Your task to perform on an android device: Do I have any events tomorrow? Image 0: 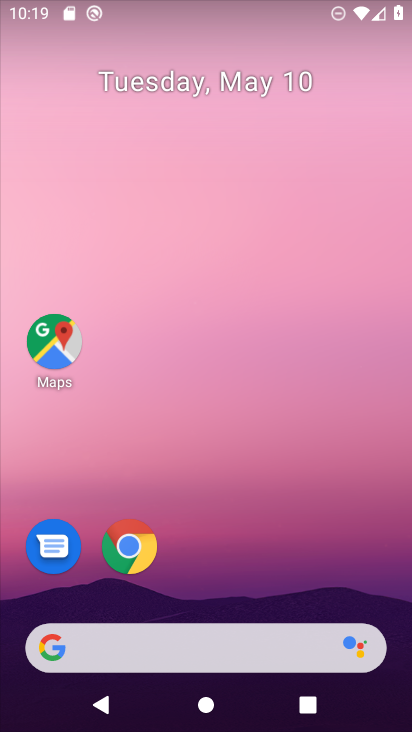
Step 0: drag from (257, 548) to (270, 67)
Your task to perform on an android device: Do I have any events tomorrow? Image 1: 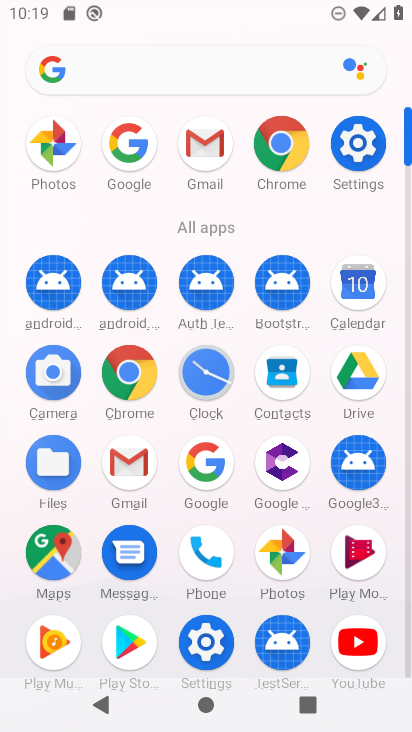
Step 1: click (349, 278)
Your task to perform on an android device: Do I have any events tomorrow? Image 2: 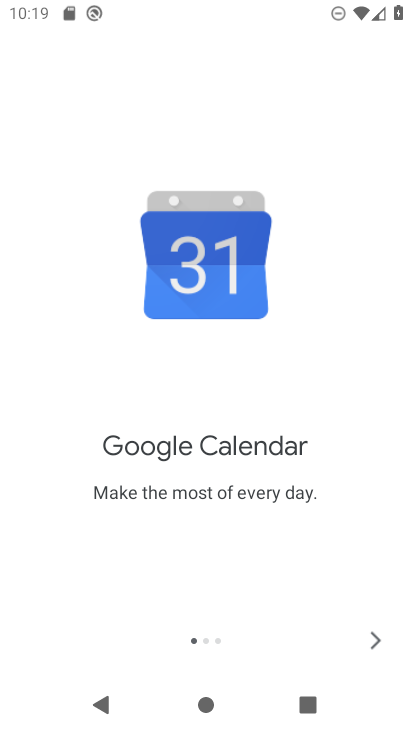
Step 2: click (376, 637)
Your task to perform on an android device: Do I have any events tomorrow? Image 3: 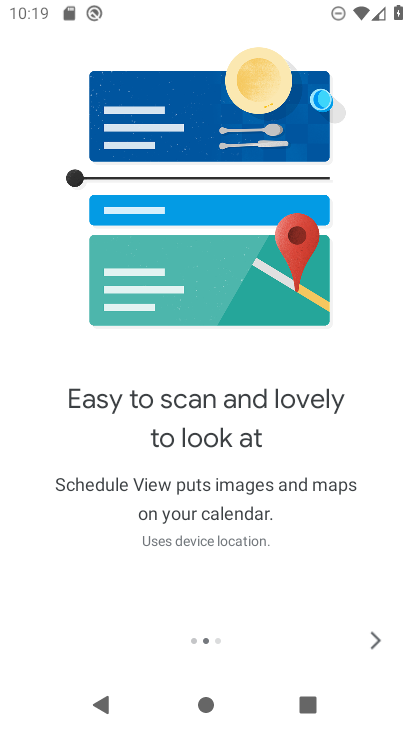
Step 3: click (376, 637)
Your task to perform on an android device: Do I have any events tomorrow? Image 4: 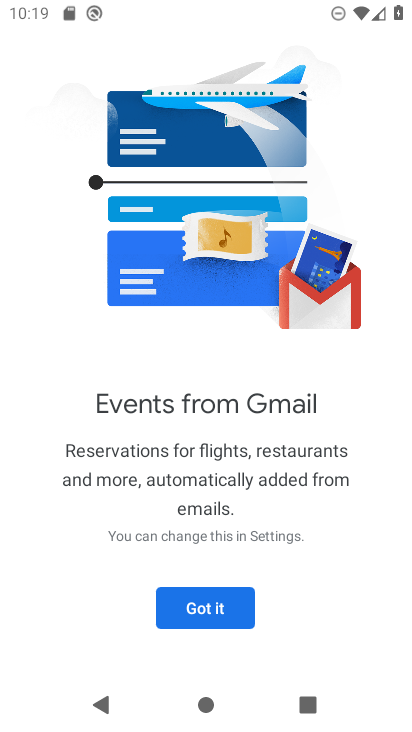
Step 4: click (183, 614)
Your task to perform on an android device: Do I have any events tomorrow? Image 5: 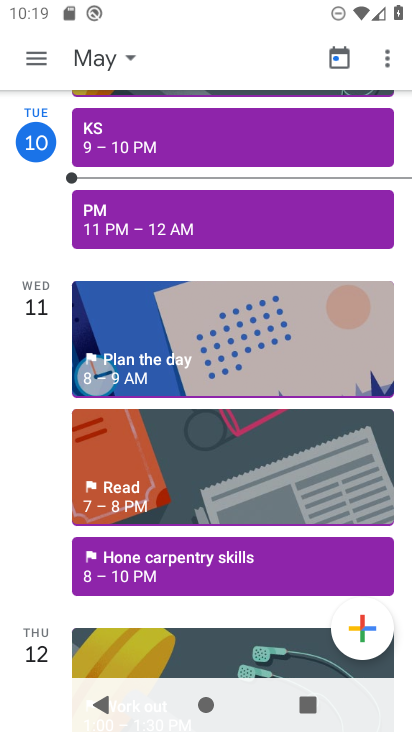
Step 5: task complete